Your task to perform on an android device: toggle improve location accuracy Image 0: 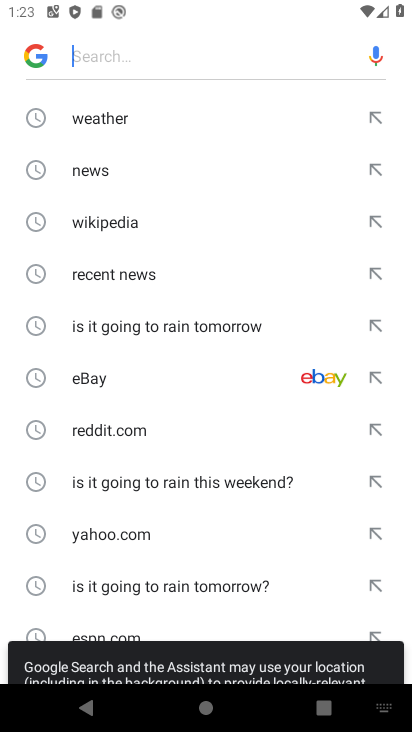
Step 0: press home button
Your task to perform on an android device: toggle improve location accuracy Image 1: 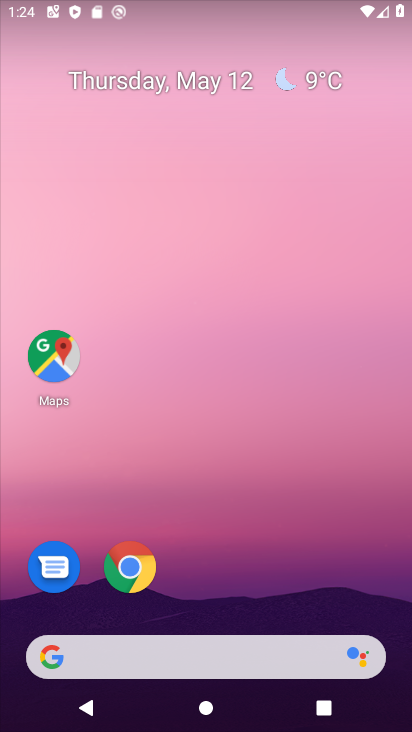
Step 1: drag from (209, 596) to (223, 160)
Your task to perform on an android device: toggle improve location accuracy Image 2: 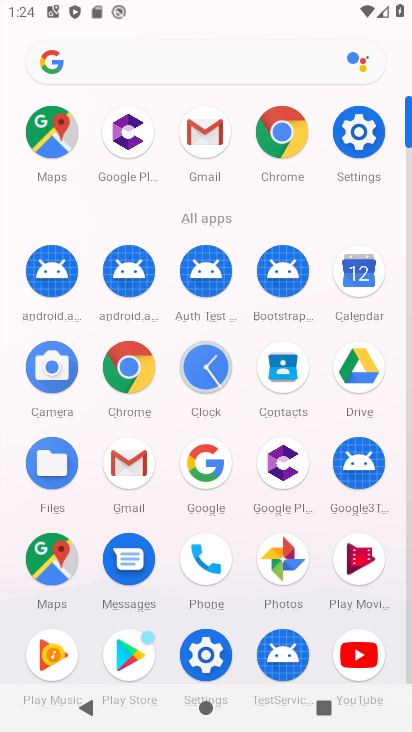
Step 2: click (361, 148)
Your task to perform on an android device: toggle improve location accuracy Image 3: 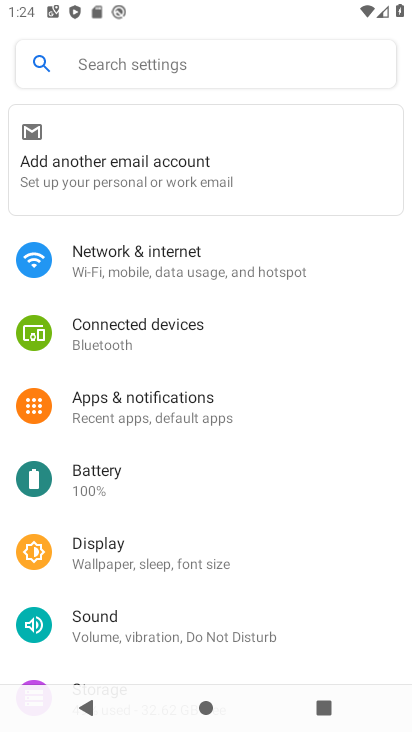
Step 3: drag from (243, 534) to (231, 317)
Your task to perform on an android device: toggle improve location accuracy Image 4: 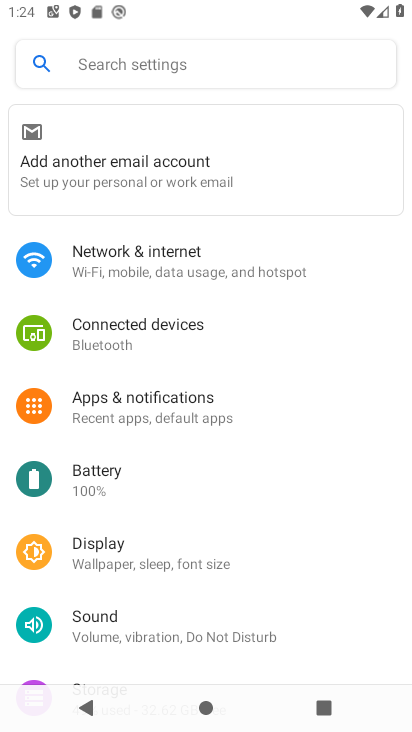
Step 4: drag from (248, 595) to (238, 312)
Your task to perform on an android device: toggle improve location accuracy Image 5: 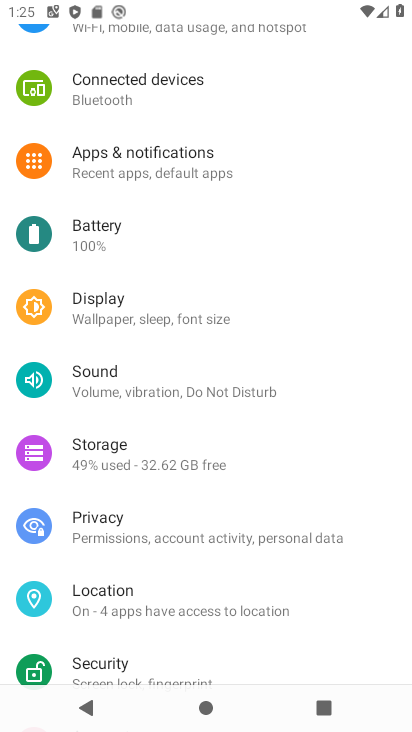
Step 5: drag from (171, 405) to (148, 532)
Your task to perform on an android device: toggle improve location accuracy Image 6: 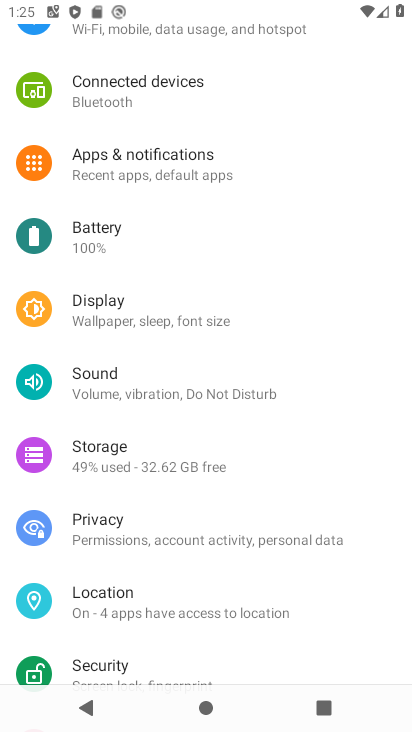
Step 6: drag from (223, 269) to (174, 601)
Your task to perform on an android device: toggle improve location accuracy Image 7: 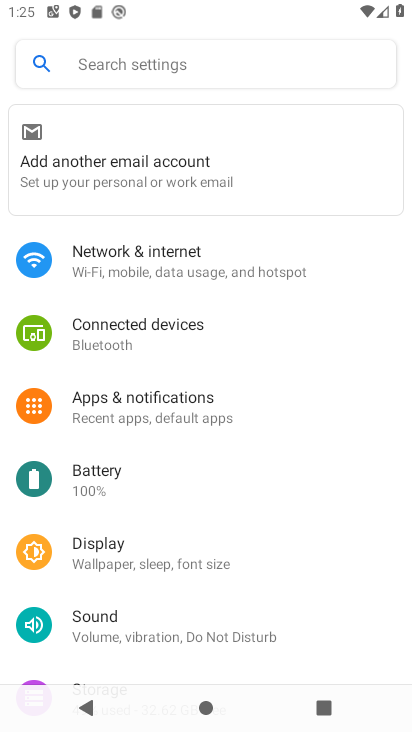
Step 7: drag from (178, 616) to (194, 237)
Your task to perform on an android device: toggle improve location accuracy Image 8: 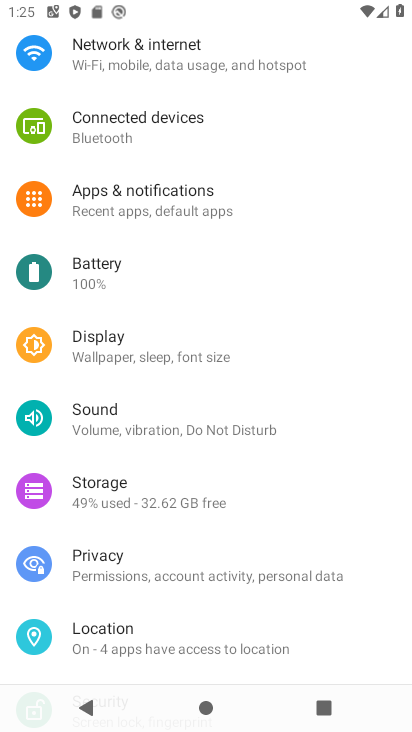
Step 8: click (161, 643)
Your task to perform on an android device: toggle improve location accuracy Image 9: 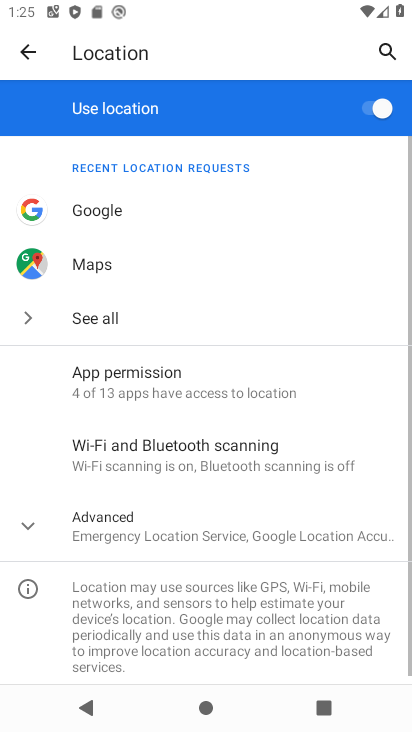
Step 9: click (166, 531)
Your task to perform on an android device: toggle improve location accuracy Image 10: 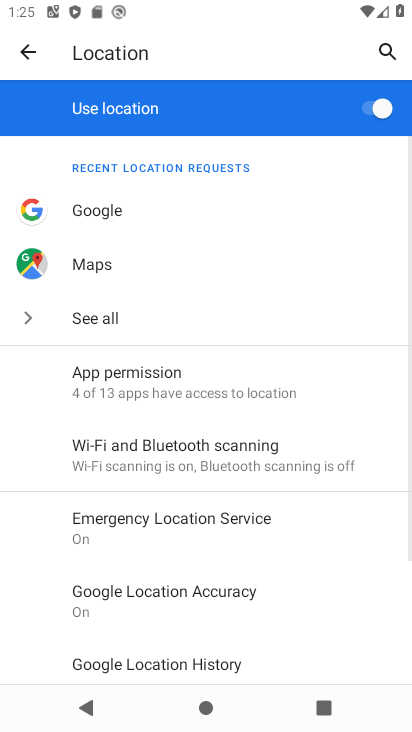
Step 10: drag from (206, 635) to (254, 351)
Your task to perform on an android device: toggle improve location accuracy Image 11: 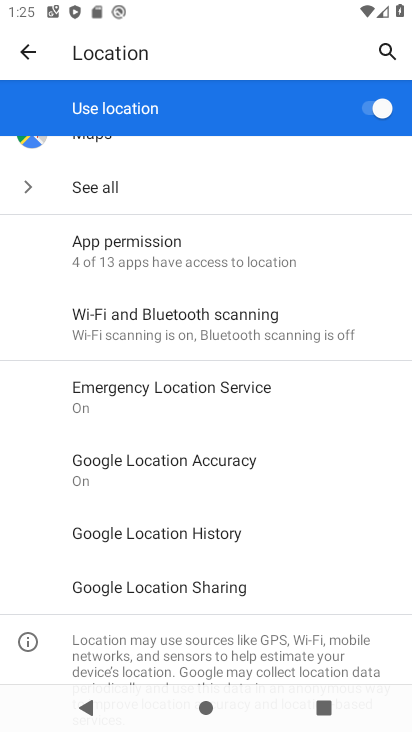
Step 11: click (145, 469)
Your task to perform on an android device: toggle improve location accuracy Image 12: 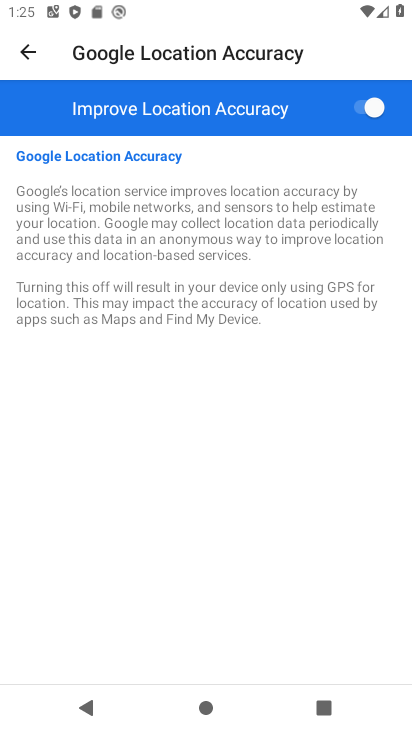
Step 12: click (357, 111)
Your task to perform on an android device: toggle improve location accuracy Image 13: 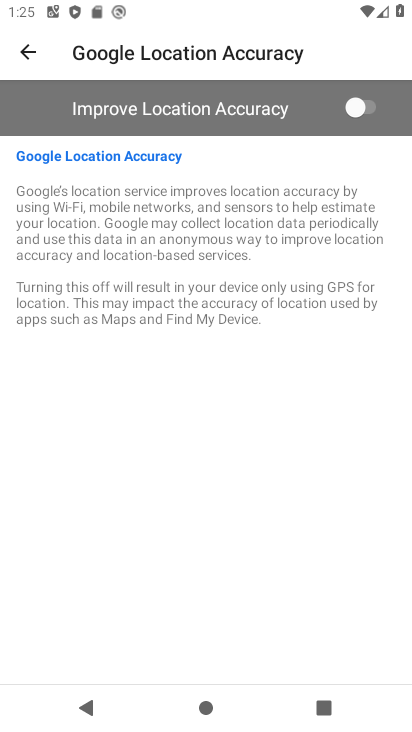
Step 13: task complete